Your task to perform on an android device: allow cookies in the chrome app Image 0: 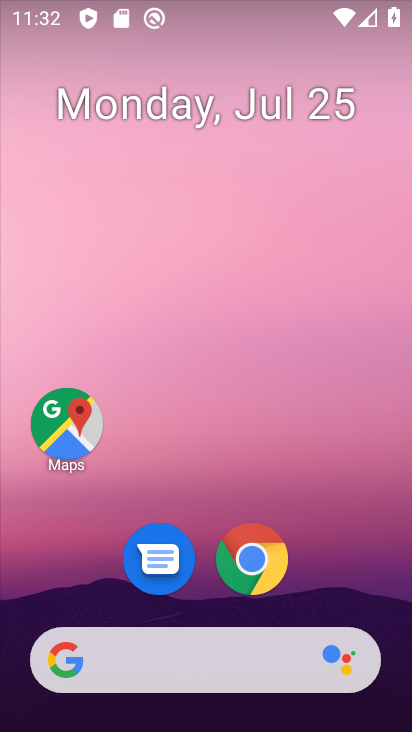
Step 0: click (263, 563)
Your task to perform on an android device: allow cookies in the chrome app Image 1: 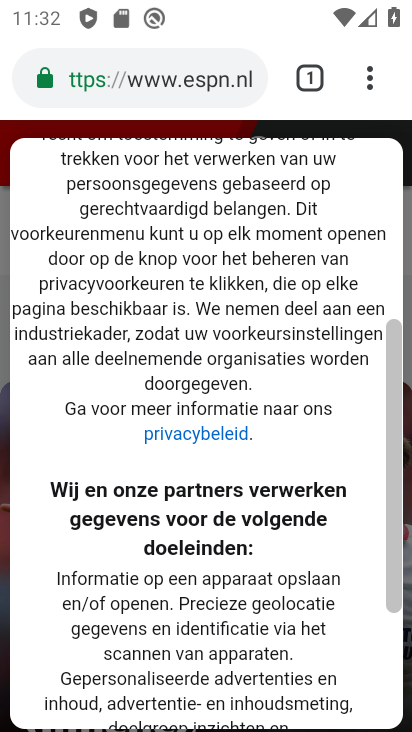
Step 1: drag from (365, 85) to (108, 625)
Your task to perform on an android device: allow cookies in the chrome app Image 2: 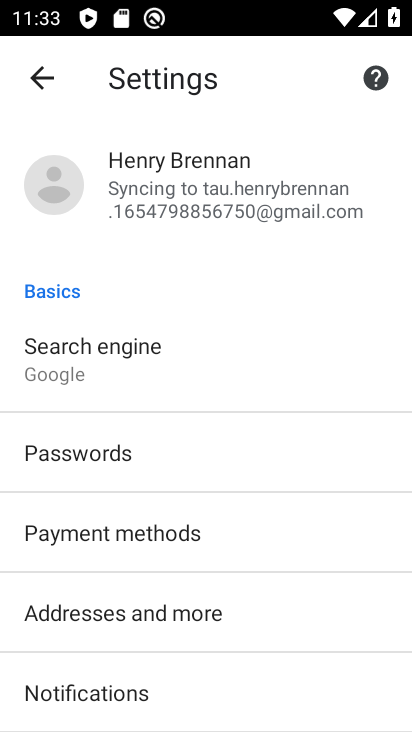
Step 2: drag from (118, 627) to (241, 38)
Your task to perform on an android device: allow cookies in the chrome app Image 3: 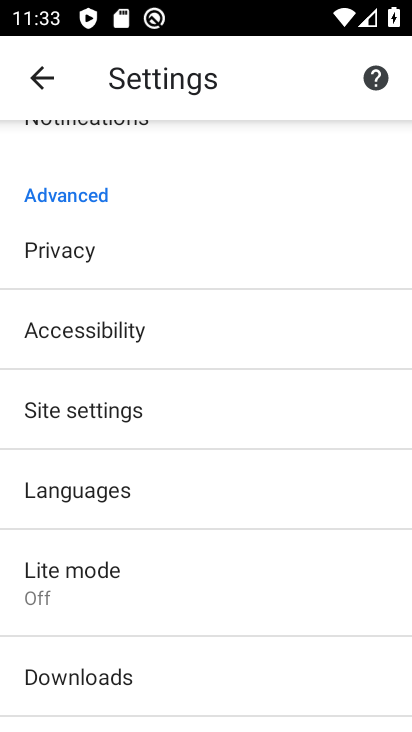
Step 3: click (93, 393)
Your task to perform on an android device: allow cookies in the chrome app Image 4: 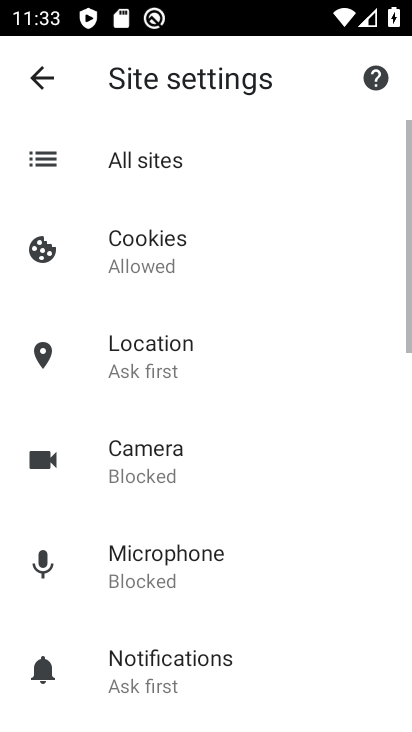
Step 4: click (153, 244)
Your task to perform on an android device: allow cookies in the chrome app Image 5: 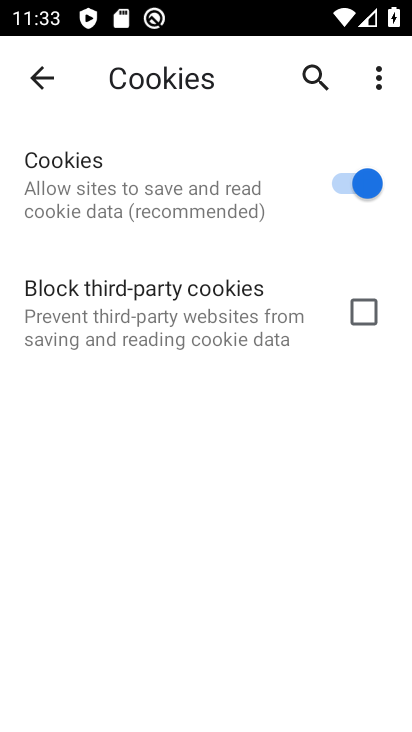
Step 5: task complete